Your task to perform on an android device: Open calendar and show me the second week of next month Image 0: 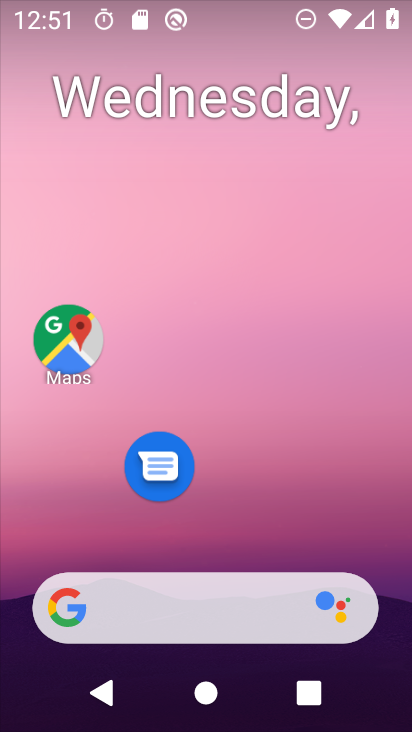
Step 0: drag from (381, 488) to (231, 1)
Your task to perform on an android device: Open calendar and show me the second week of next month Image 1: 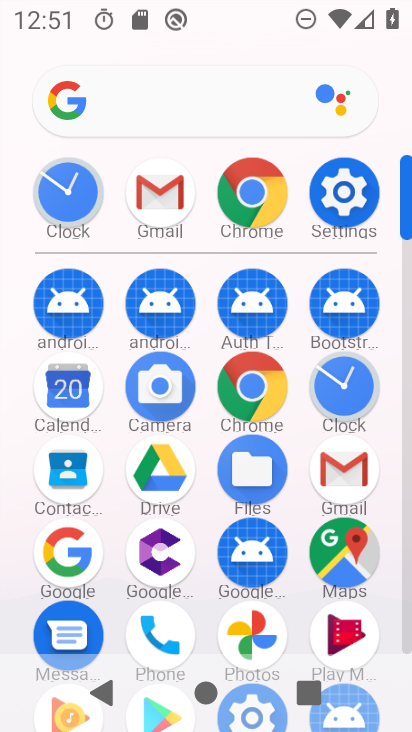
Step 1: click (76, 408)
Your task to perform on an android device: Open calendar and show me the second week of next month Image 2: 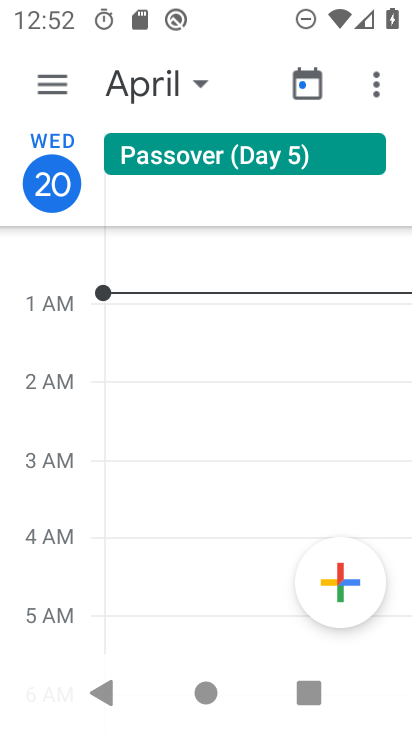
Step 2: click (159, 81)
Your task to perform on an android device: Open calendar and show me the second week of next month Image 3: 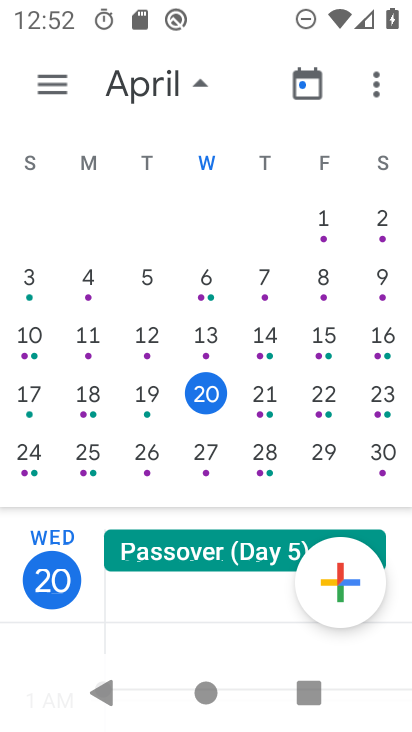
Step 3: drag from (368, 372) to (15, 341)
Your task to perform on an android device: Open calendar and show me the second week of next month Image 4: 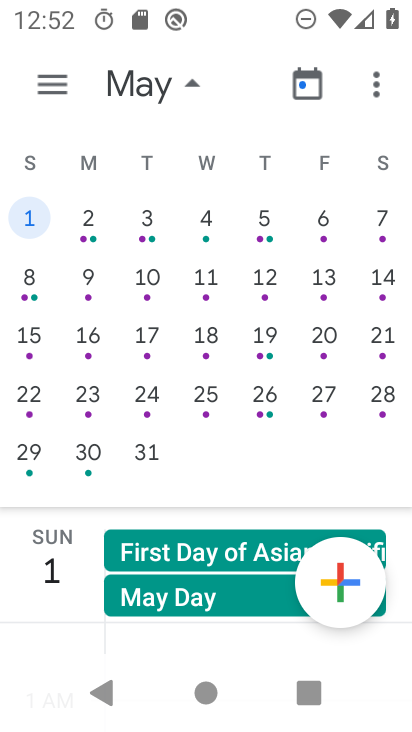
Step 4: click (216, 267)
Your task to perform on an android device: Open calendar and show me the second week of next month Image 5: 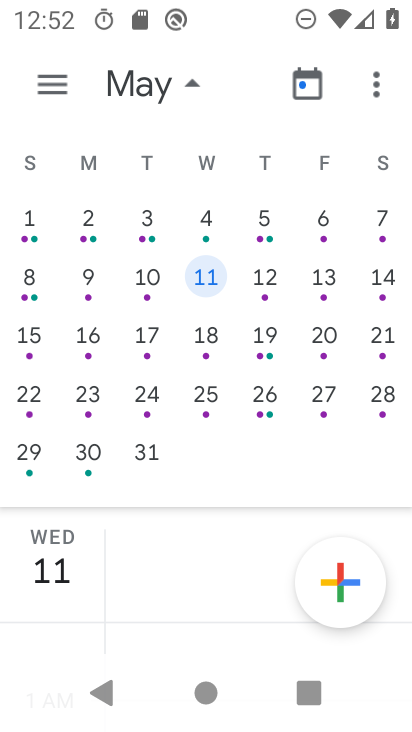
Step 5: task complete